Your task to perform on an android device: turn off wifi Image 0: 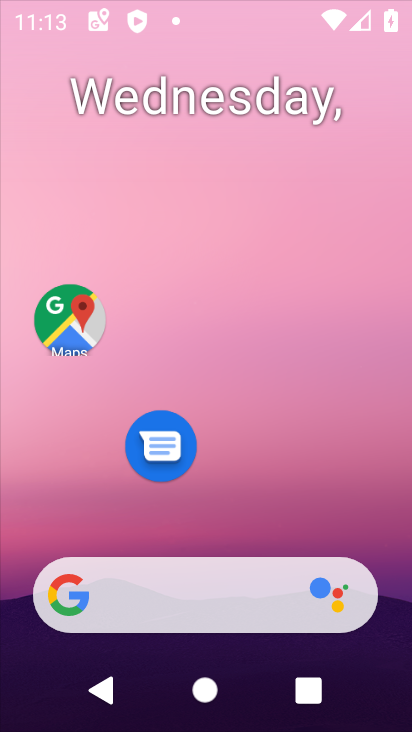
Step 0: drag from (244, 525) to (393, 280)
Your task to perform on an android device: turn off wifi Image 1: 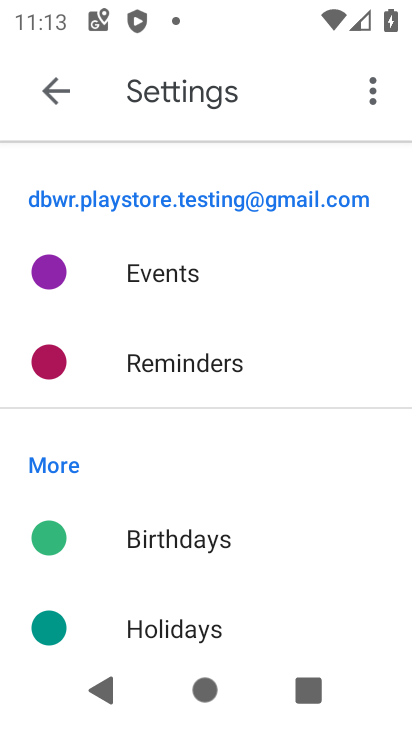
Step 1: press home button
Your task to perform on an android device: turn off wifi Image 2: 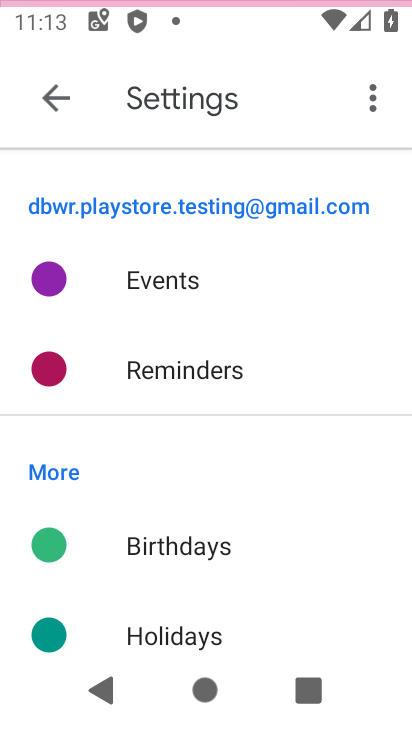
Step 2: drag from (393, 280) to (398, 427)
Your task to perform on an android device: turn off wifi Image 3: 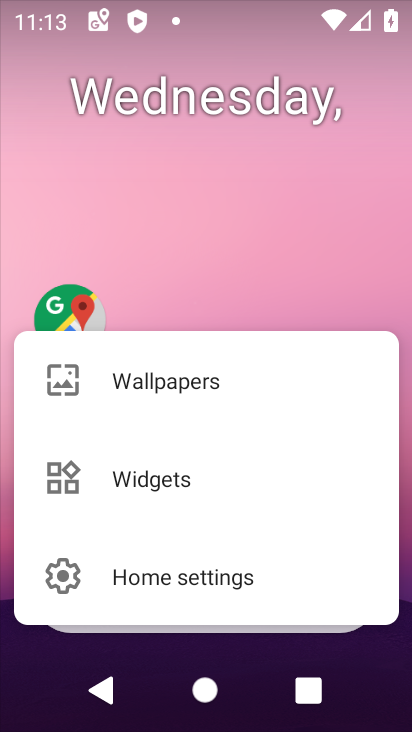
Step 3: click (236, 236)
Your task to perform on an android device: turn off wifi Image 4: 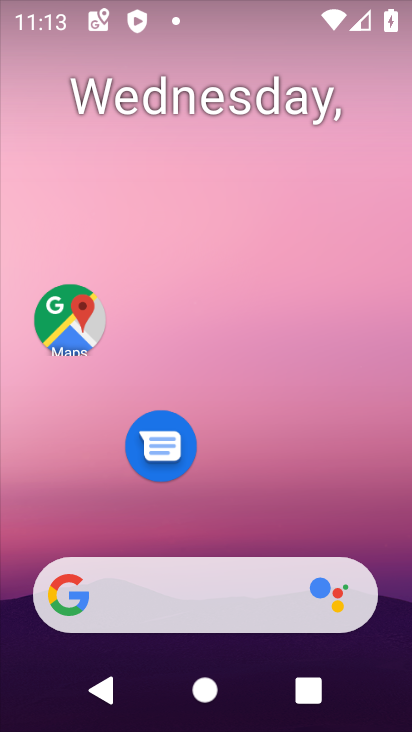
Step 4: drag from (254, 448) to (170, 98)
Your task to perform on an android device: turn off wifi Image 5: 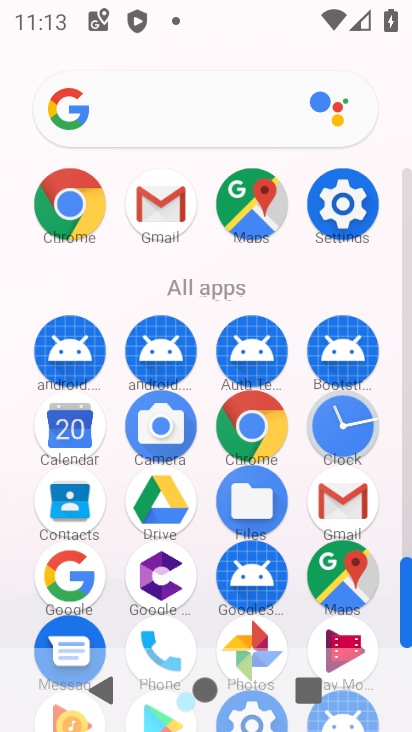
Step 5: click (365, 206)
Your task to perform on an android device: turn off wifi Image 6: 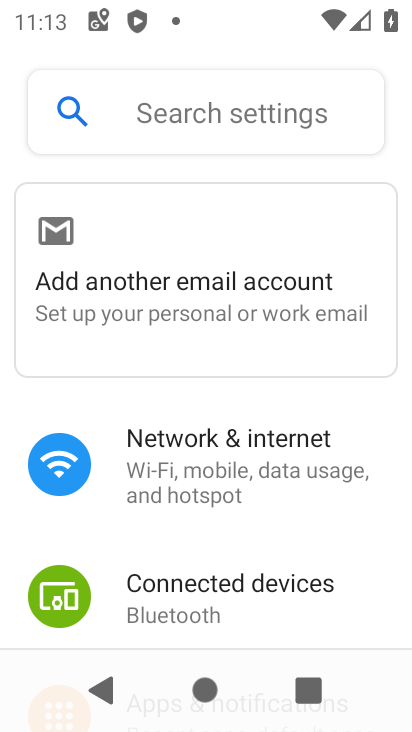
Step 6: click (127, 444)
Your task to perform on an android device: turn off wifi Image 7: 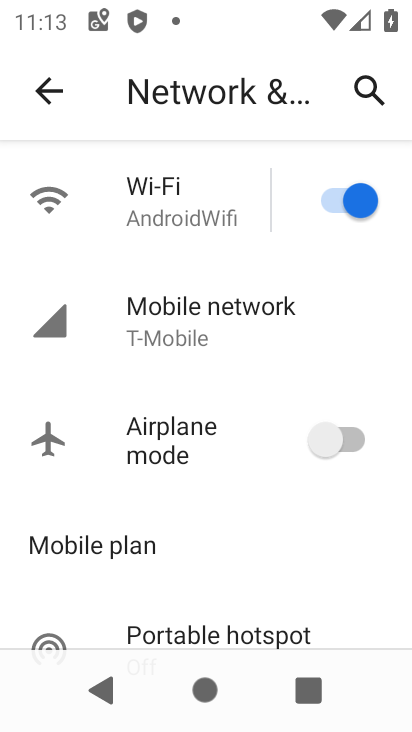
Step 7: click (348, 205)
Your task to perform on an android device: turn off wifi Image 8: 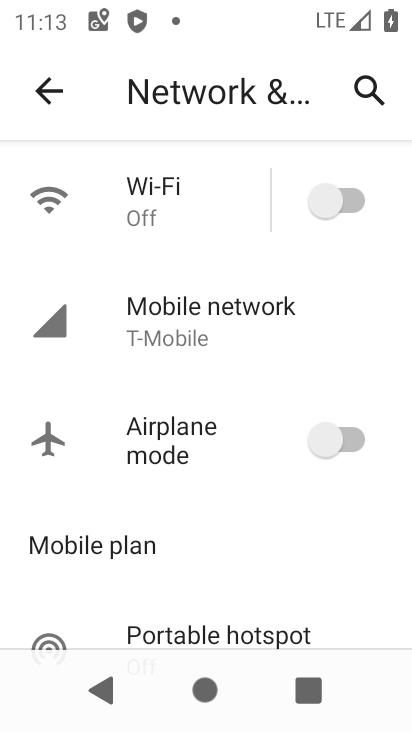
Step 8: task complete